Your task to perform on an android device: What is the news today? Image 0: 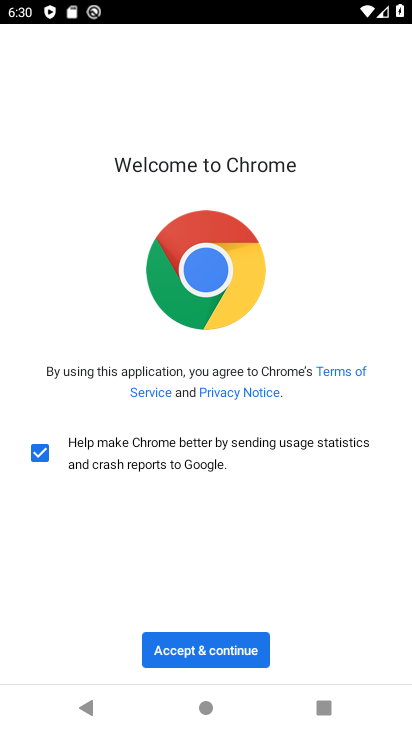
Step 0: click (220, 659)
Your task to perform on an android device: What is the news today? Image 1: 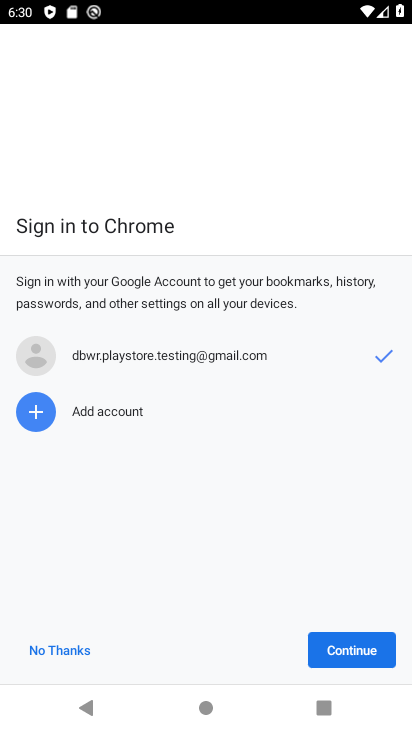
Step 1: click (364, 654)
Your task to perform on an android device: What is the news today? Image 2: 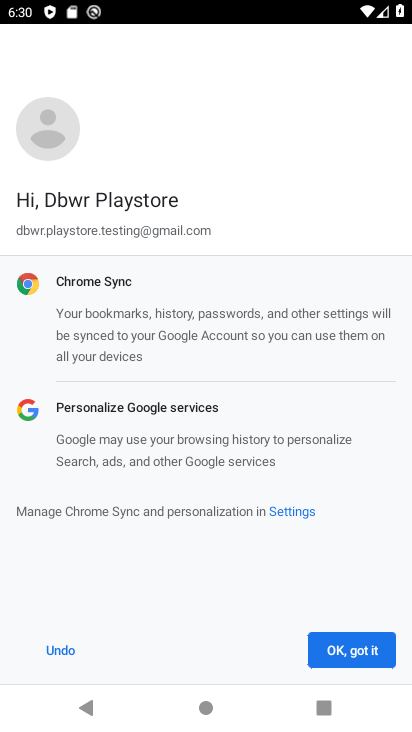
Step 2: click (364, 654)
Your task to perform on an android device: What is the news today? Image 3: 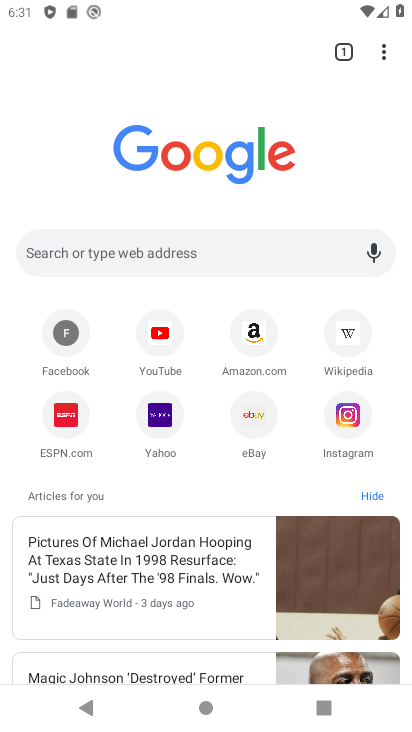
Step 3: click (338, 374)
Your task to perform on an android device: What is the news today? Image 4: 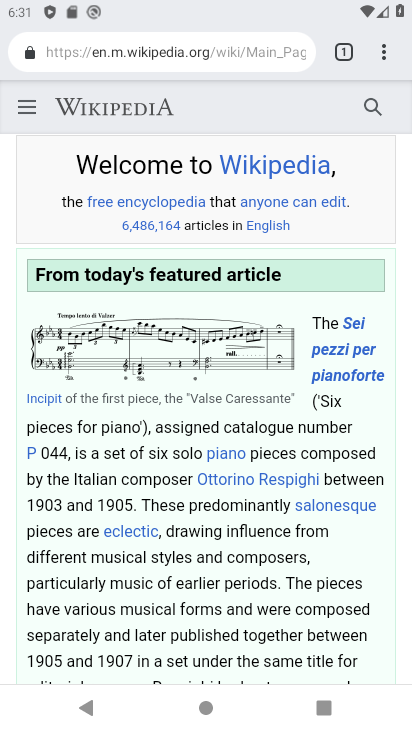
Step 4: type "Is it going to rain this weekend?"
Your task to perform on an android device: What is the news today? Image 5: 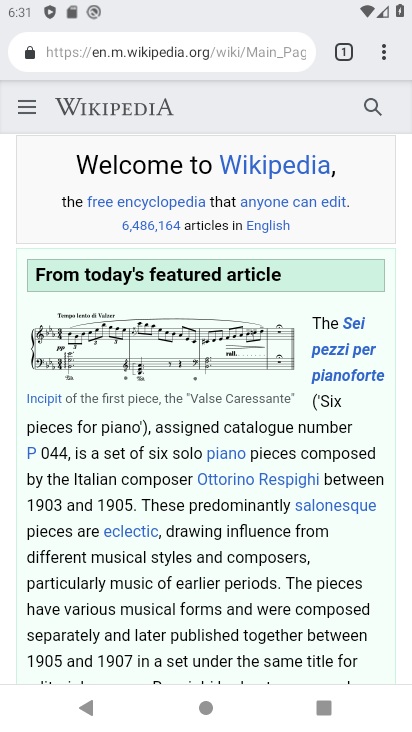
Step 5: click (223, 48)
Your task to perform on an android device: What is the news today? Image 6: 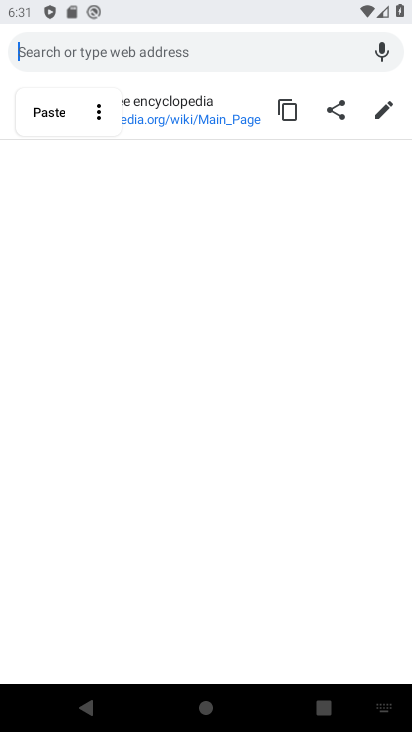
Step 6: type "Is it going to rain this weekend?"
Your task to perform on an android device: What is the news today? Image 7: 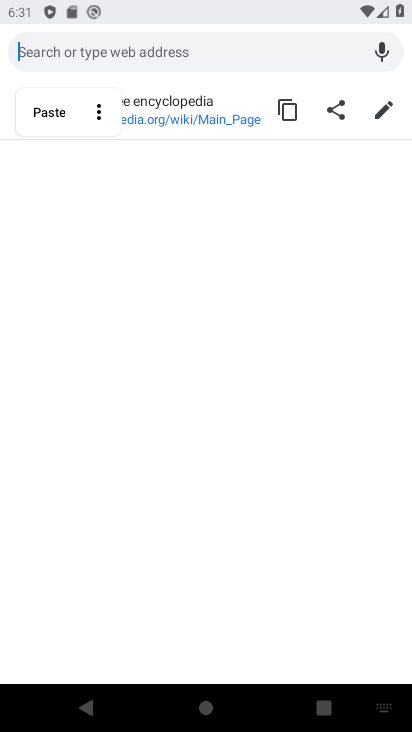
Step 7: click (201, 44)
Your task to perform on an android device: What is the news today? Image 8: 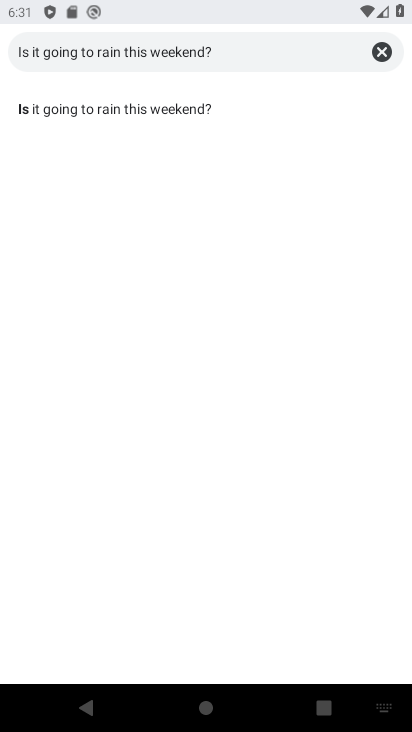
Step 8: type "Is it going to rain this weekend?"
Your task to perform on an android device: What is the news today? Image 9: 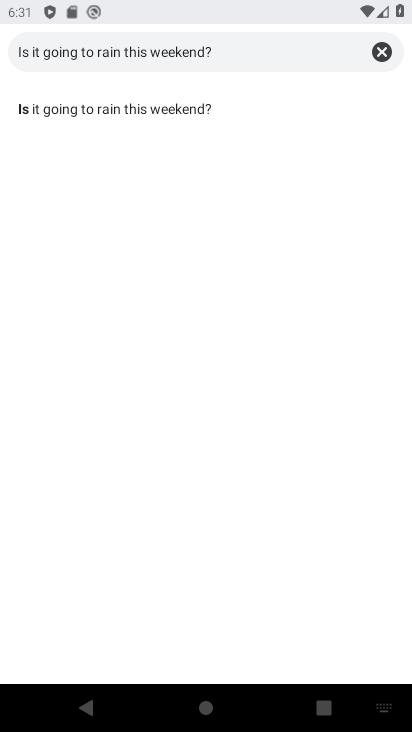
Step 9: click (61, 99)
Your task to perform on an android device: What is the news today? Image 10: 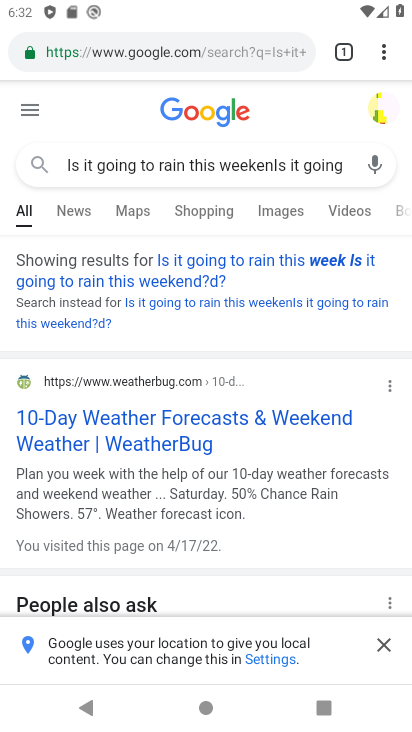
Step 10: task complete